Your task to perform on an android device: Go to battery settings Image 0: 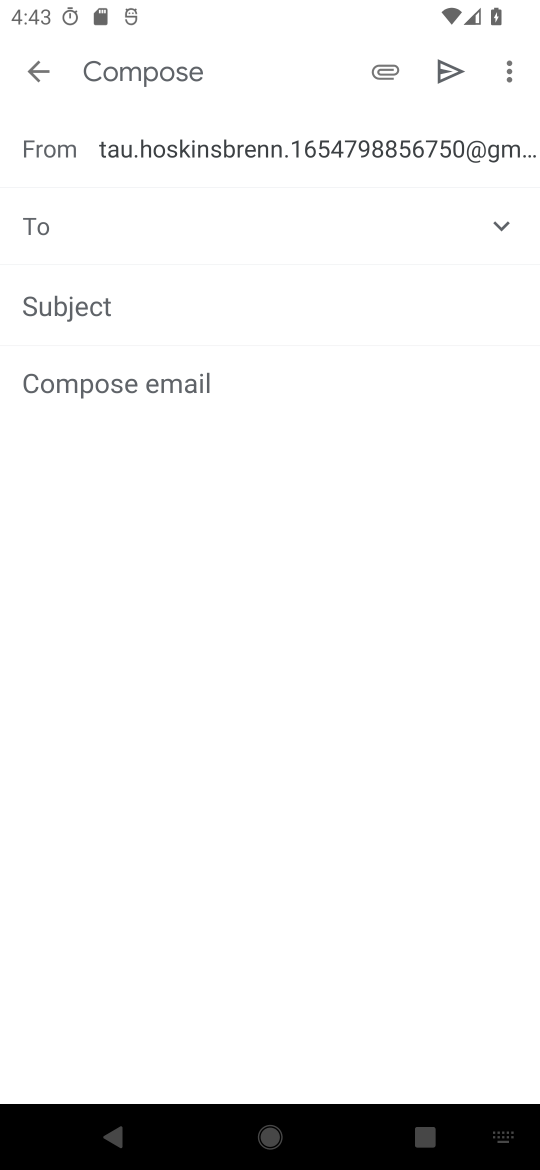
Step 0: press home button
Your task to perform on an android device: Go to battery settings Image 1: 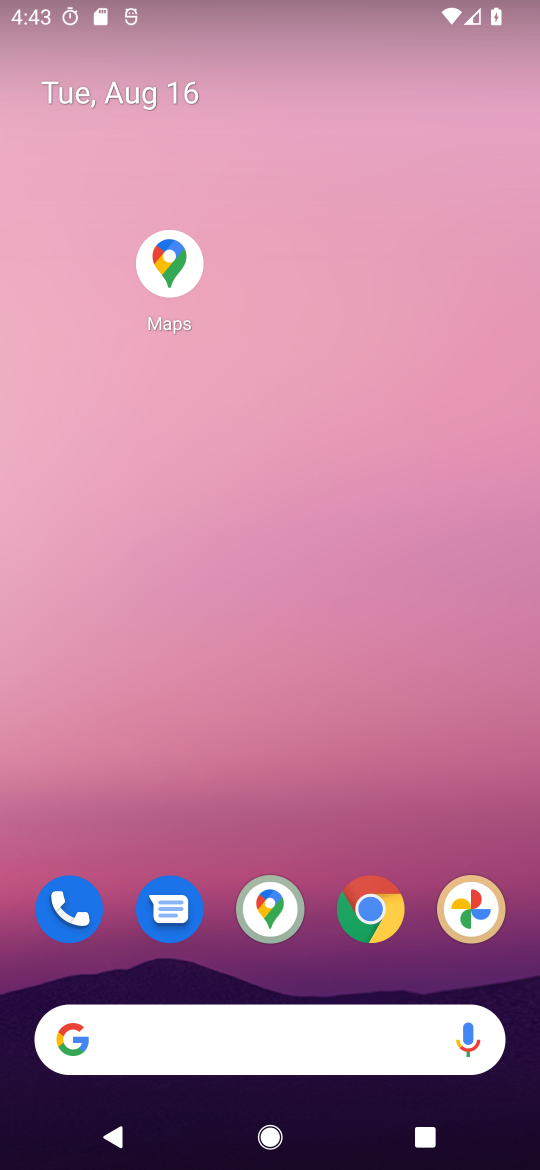
Step 1: drag from (282, 879) to (340, 324)
Your task to perform on an android device: Go to battery settings Image 2: 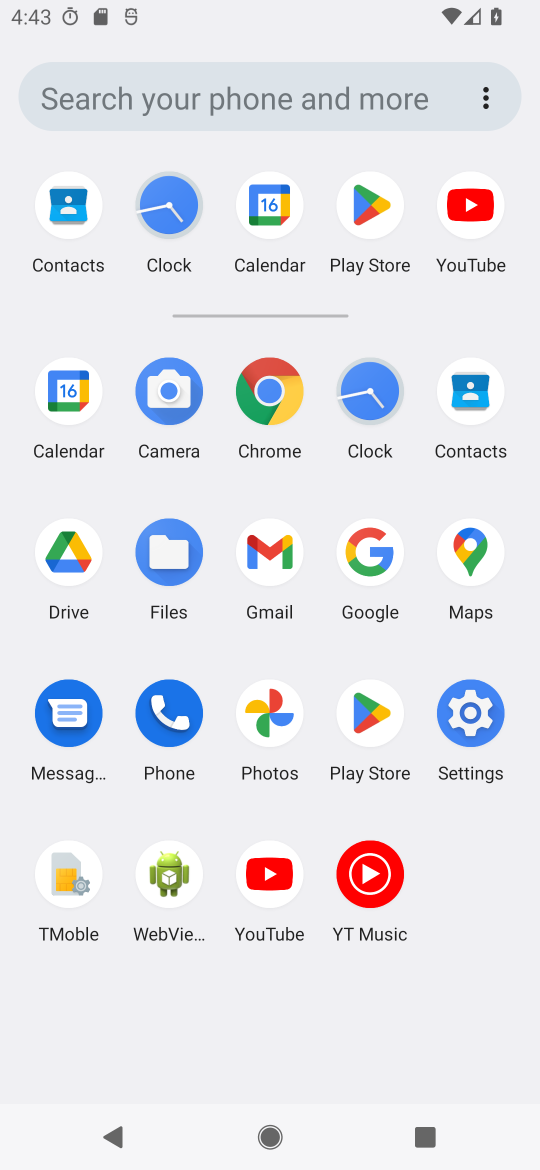
Step 2: click (457, 722)
Your task to perform on an android device: Go to battery settings Image 3: 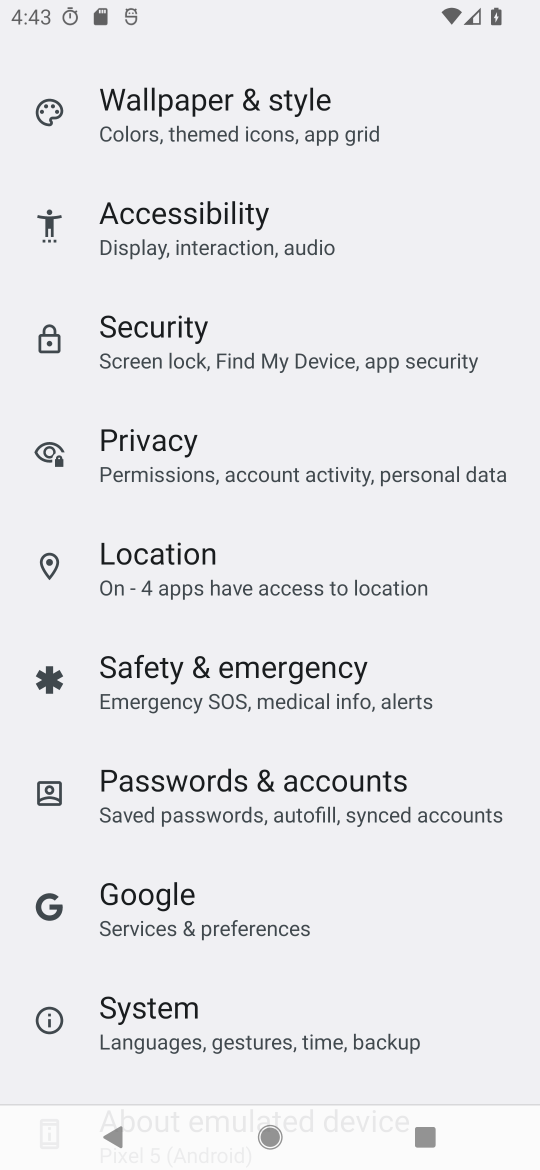
Step 3: click (319, 1142)
Your task to perform on an android device: Go to battery settings Image 4: 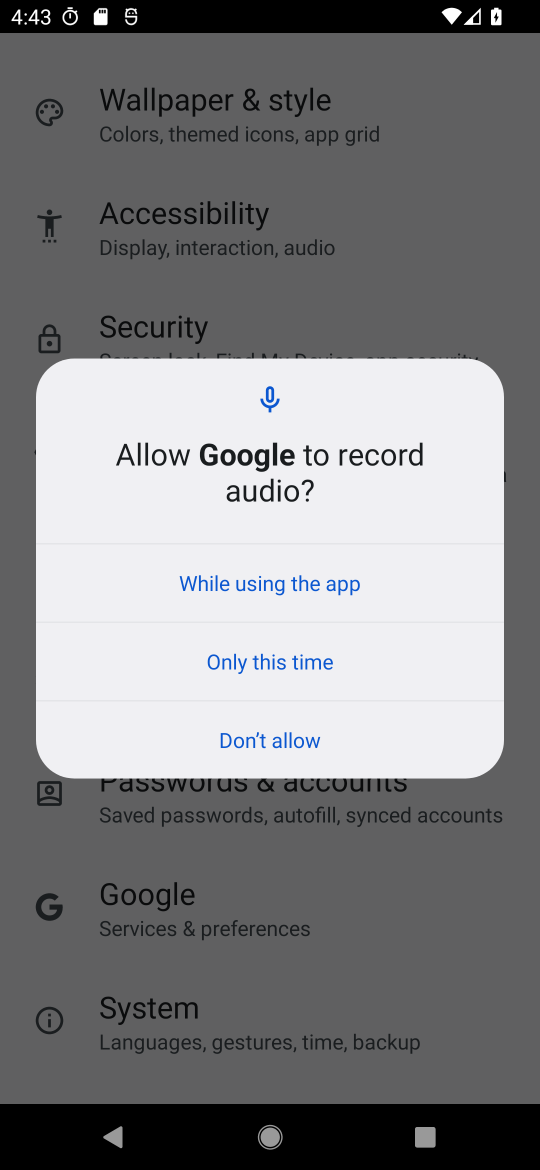
Step 4: press back button
Your task to perform on an android device: Go to battery settings Image 5: 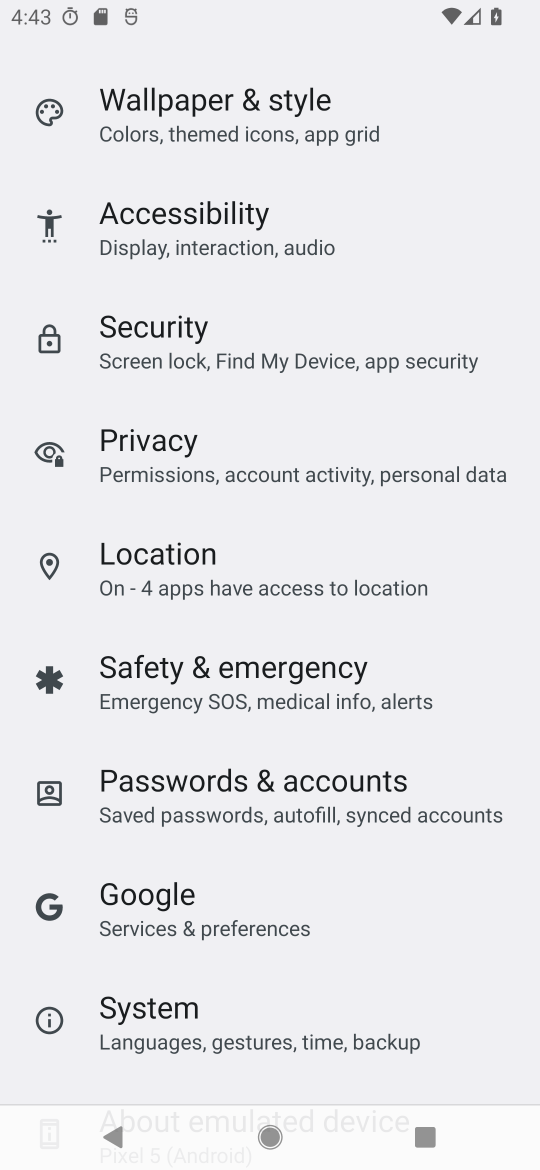
Step 5: drag from (271, 148) to (221, 855)
Your task to perform on an android device: Go to battery settings Image 6: 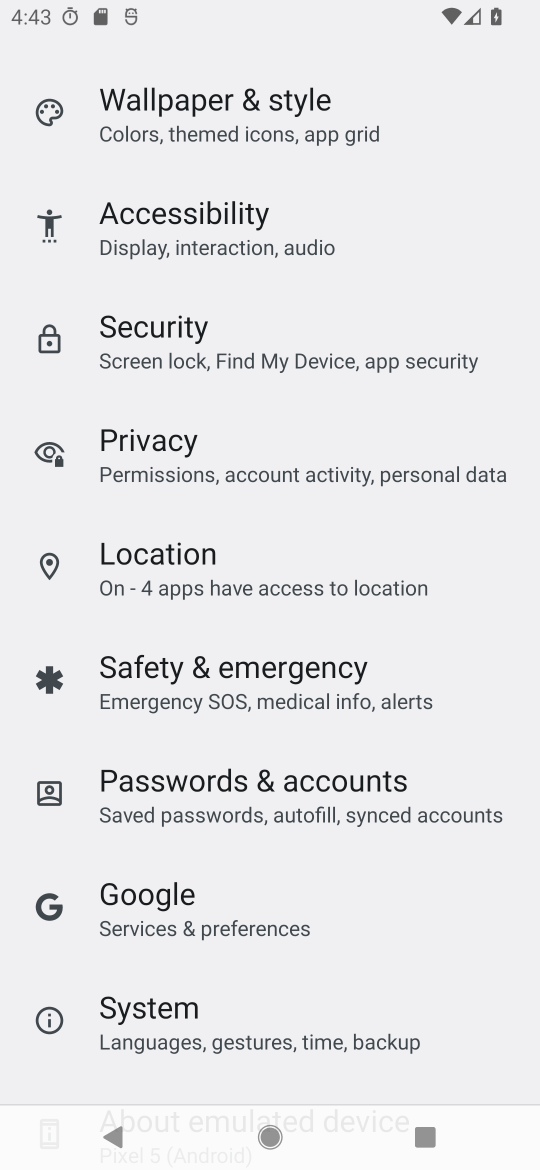
Step 6: drag from (222, 525) to (222, 420)
Your task to perform on an android device: Go to battery settings Image 7: 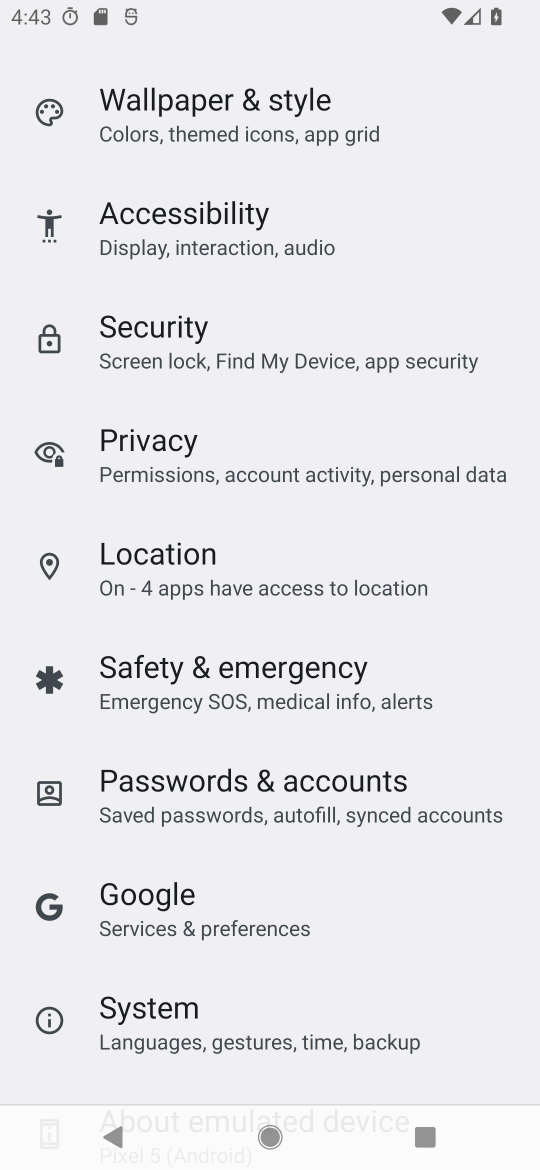
Step 7: drag from (239, 275) to (216, 1153)
Your task to perform on an android device: Go to battery settings Image 8: 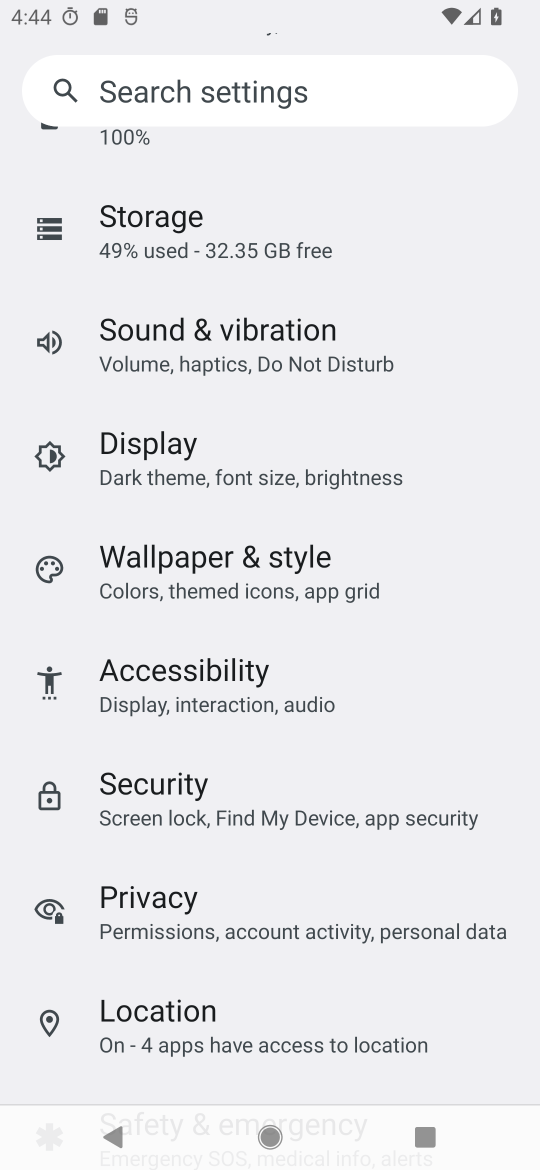
Step 8: drag from (294, 177) to (241, 935)
Your task to perform on an android device: Go to battery settings Image 9: 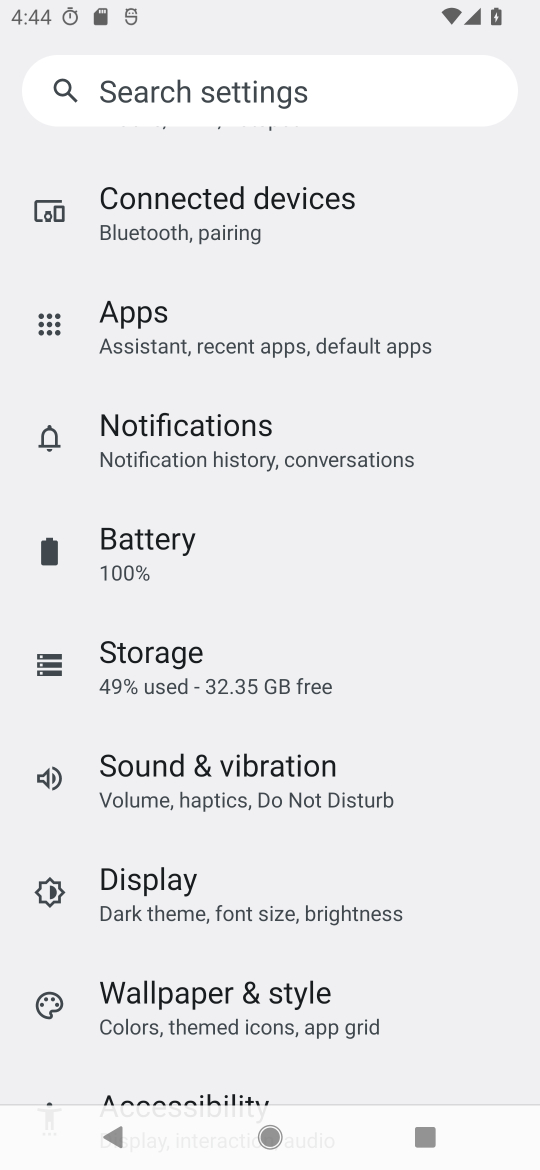
Step 9: click (129, 562)
Your task to perform on an android device: Go to battery settings Image 10: 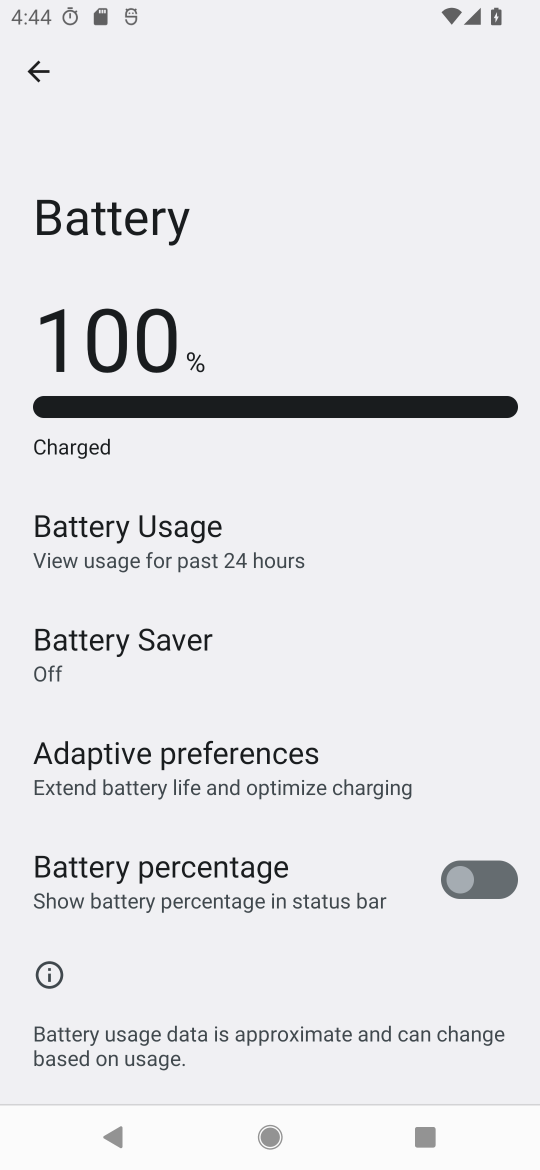
Step 10: task complete